Your task to perform on an android device: stop showing notifications on the lock screen Image 0: 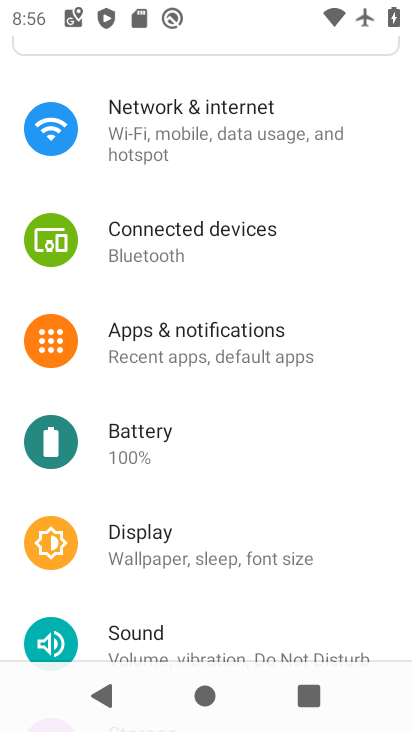
Step 0: press home button
Your task to perform on an android device: stop showing notifications on the lock screen Image 1: 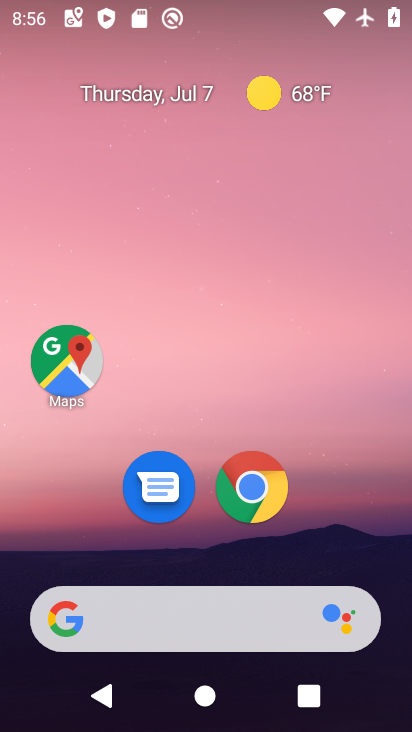
Step 1: drag from (207, 569) to (168, 22)
Your task to perform on an android device: stop showing notifications on the lock screen Image 2: 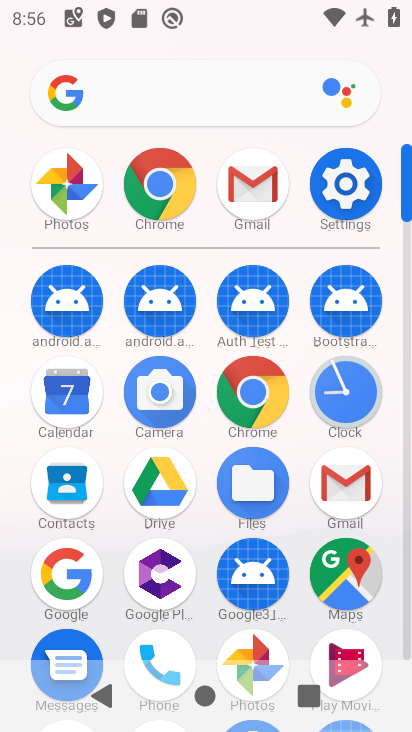
Step 2: click (343, 185)
Your task to perform on an android device: stop showing notifications on the lock screen Image 3: 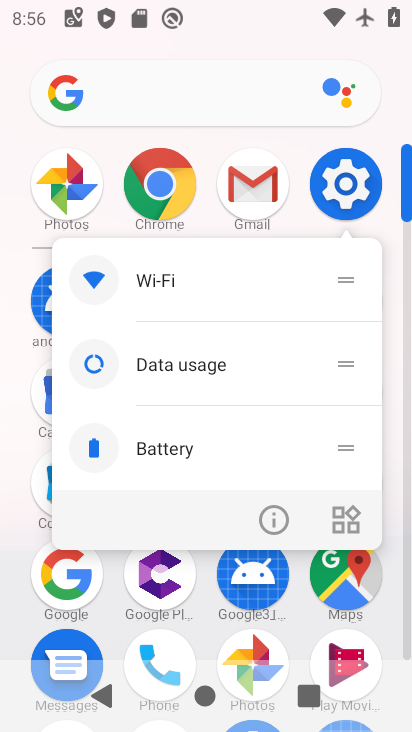
Step 3: click (338, 184)
Your task to perform on an android device: stop showing notifications on the lock screen Image 4: 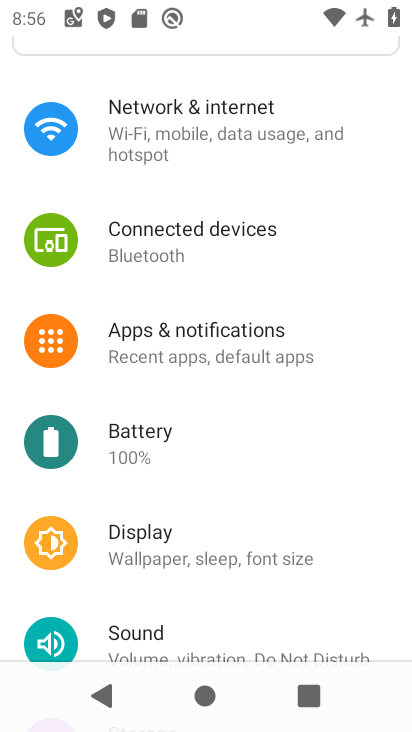
Step 4: click (232, 315)
Your task to perform on an android device: stop showing notifications on the lock screen Image 5: 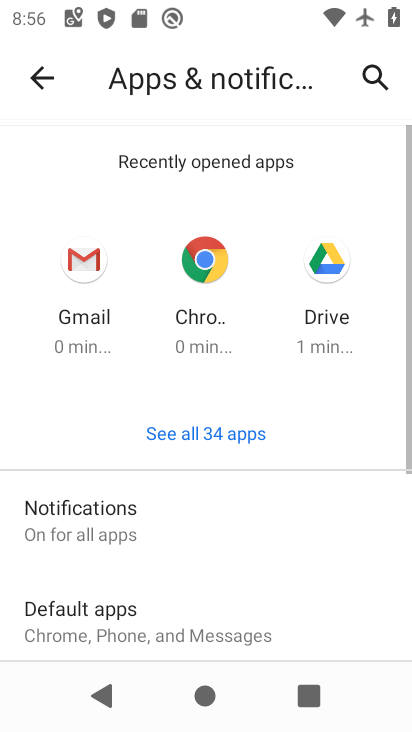
Step 5: click (130, 493)
Your task to perform on an android device: stop showing notifications on the lock screen Image 6: 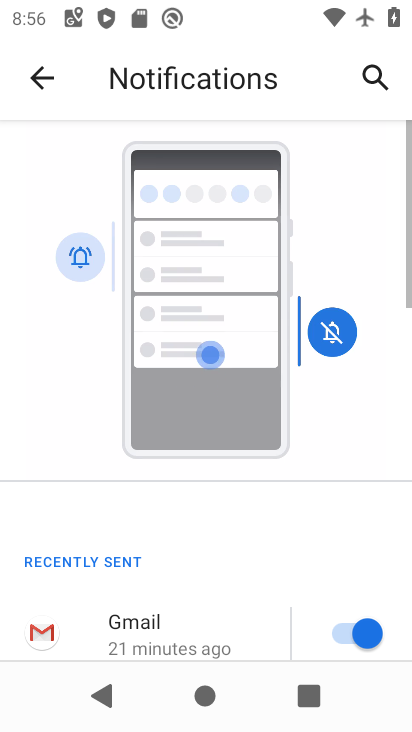
Step 6: drag from (135, 484) to (72, 18)
Your task to perform on an android device: stop showing notifications on the lock screen Image 7: 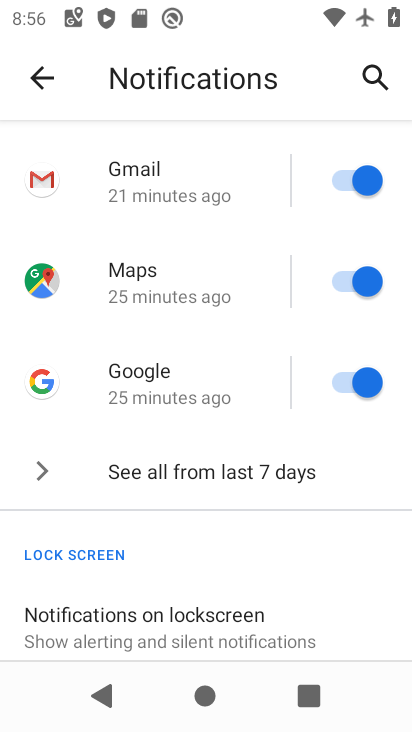
Step 7: click (179, 597)
Your task to perform on an android device: stop showing notifications on the lock screen Image 8: 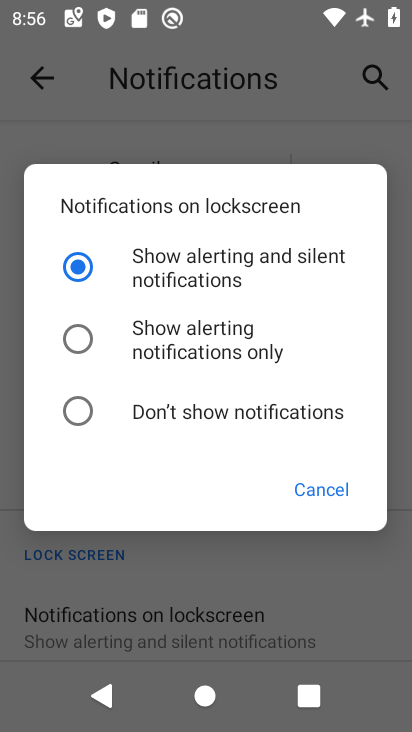
Step 8: click (167, 412)
Your task to perform on an android device: stop showing notifications on the lock screen Image 9: 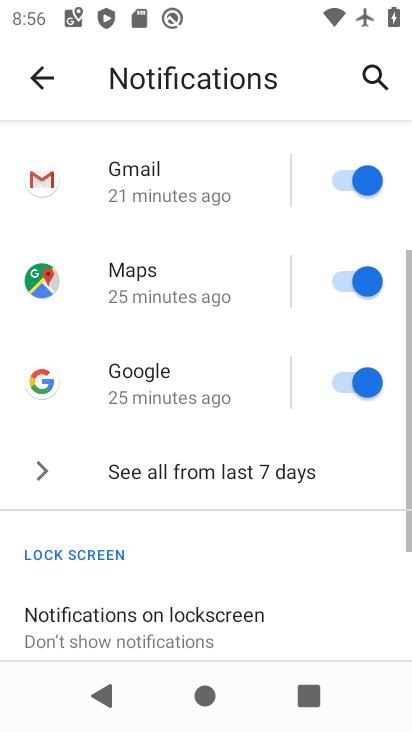
Step 9: task complete